Your task to perform on an android device: open a bookmark in the chrome app Image 0: 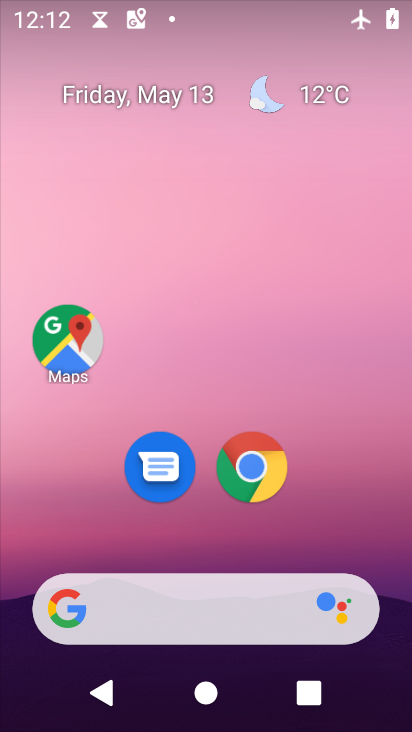
Step 0: click (264, 463)
Your task to perform on an android device: open a bookmark in the chrome app Image 1: 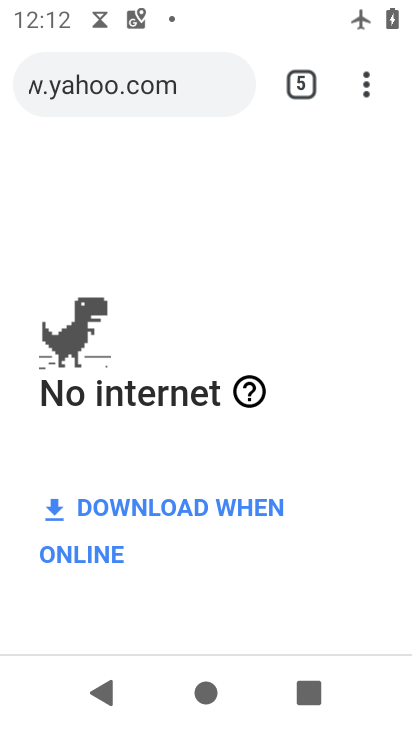
Step 1: click (363, 79)
Your task to perform on an android device: open a bookmark in the chrome app Image 2: 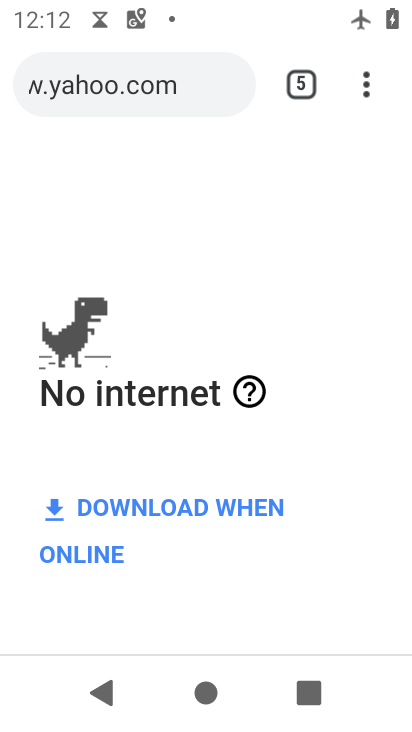
Step 2: click (362, 77)
Your task to perform on an android device: open a bookmark in the chrome app Image 3: 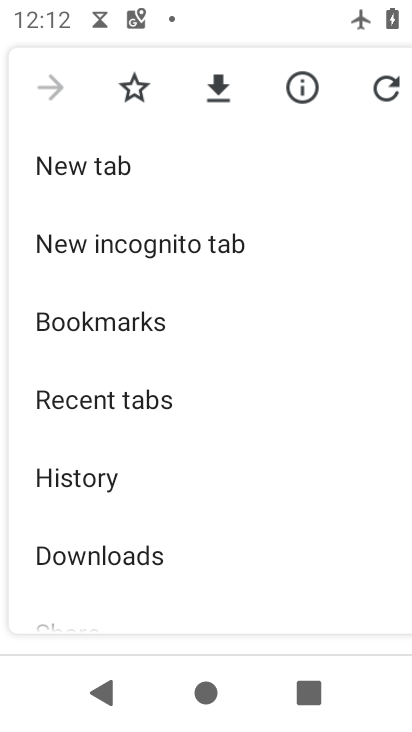
Step 3: click (146, 328)
Your task to perform on an android device: open a bookmark in the chrome app Image 4: 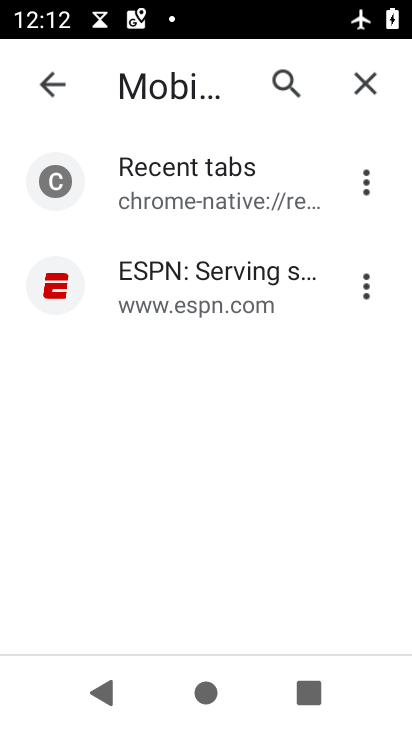
Step 4: click (200, 176)
Your task to perform on an android device: open a bookmark in the chrome app Image 5: 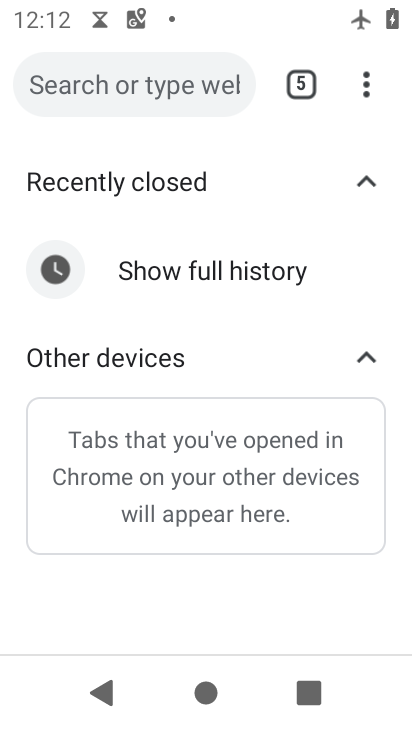
Step 5: click (359, 77)
Your task to perform on an android device: open a bookmark in the chrome app Image 6: 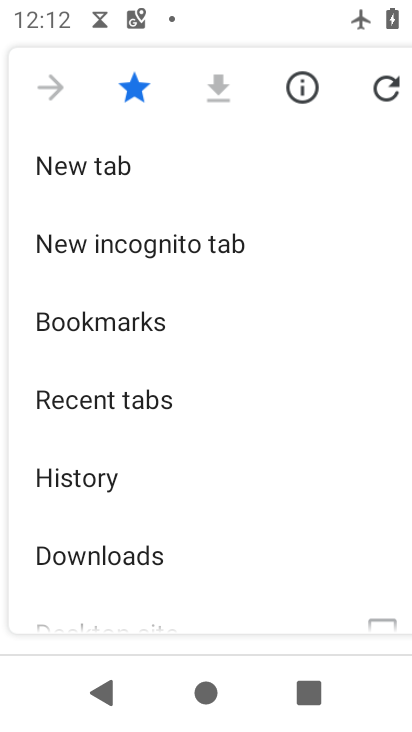
Step 6: click (149, 332)
Your task to perform on an android device: open a bookmark in the chrome app Image 7: 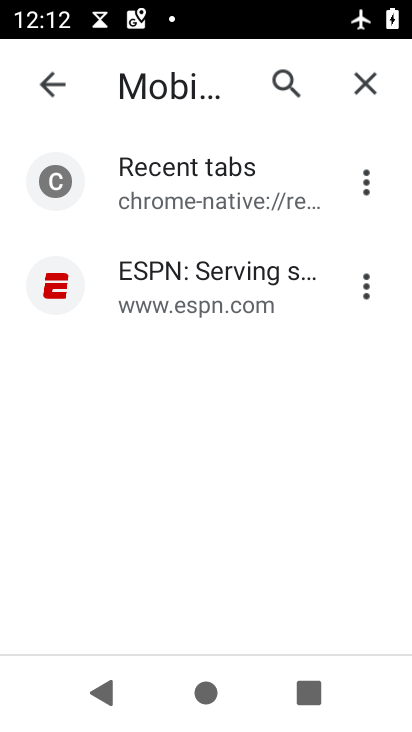
Step 7: click (193, 273)
Your task to perform on an android device: open a bookmark in the chrome app Image 8: 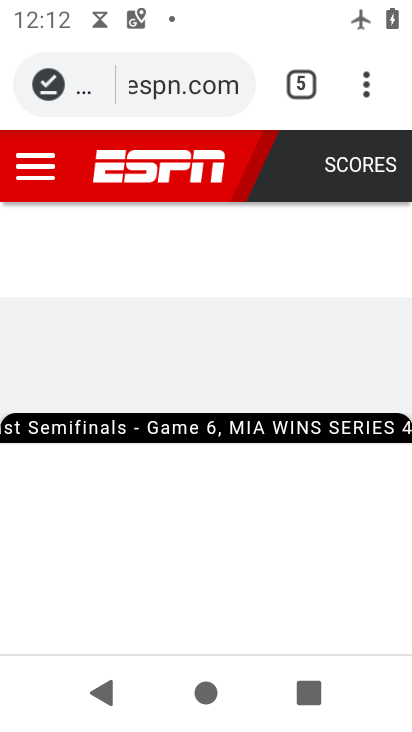
Step 8: task complete